Your task to perform on an android device: Go to Google Image 0: 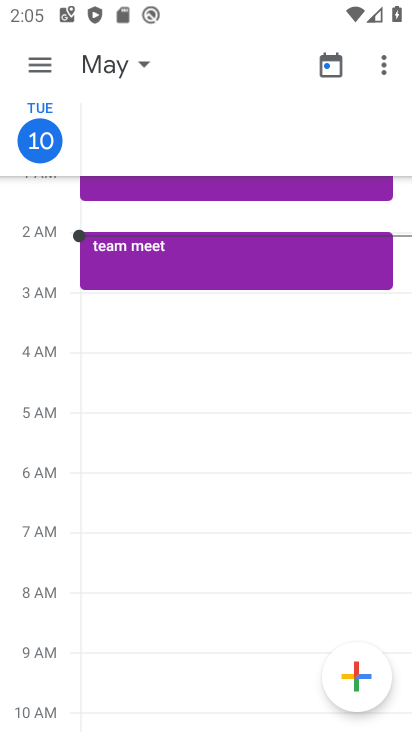
Step 0: press home button
Your task to perform on an android device: Go to Google Image 1: 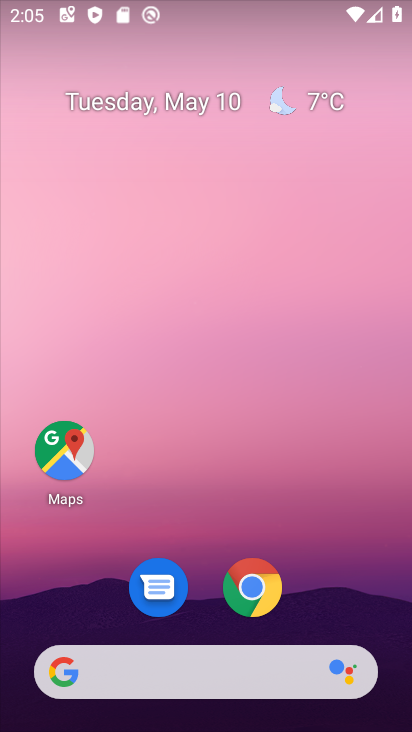
Step 1: drag from (306, 539) to (263, 74)
Your task to perform on an android device: Go to Google Image 2: 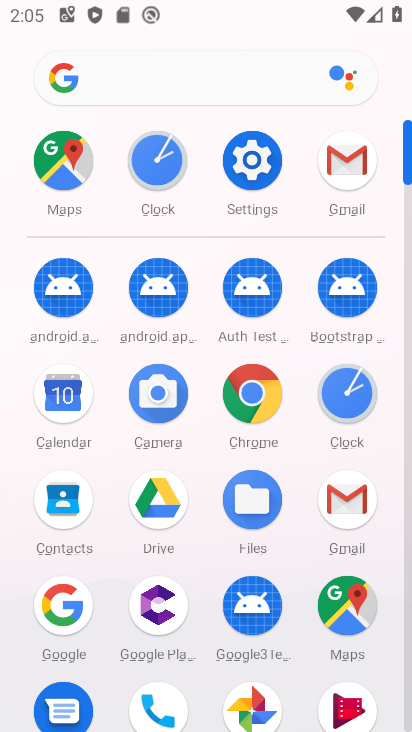
Step 2: click (66, 597)
Your task to perform on an android device: Go to Google Image 3: 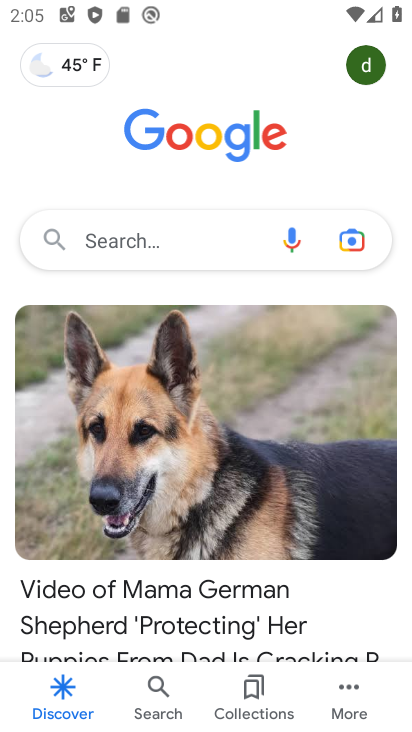
Step 3: task complete